Your task to perform on an android device: turn off translation in the chrome app Image 0: 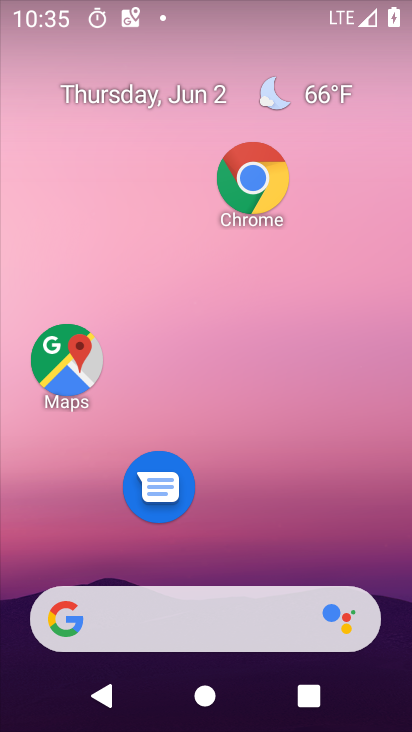
Step 0: drag from (239, 720) to (239, 90)
Your task to perform on an android device: turn off translation in the chrome app Image 1: 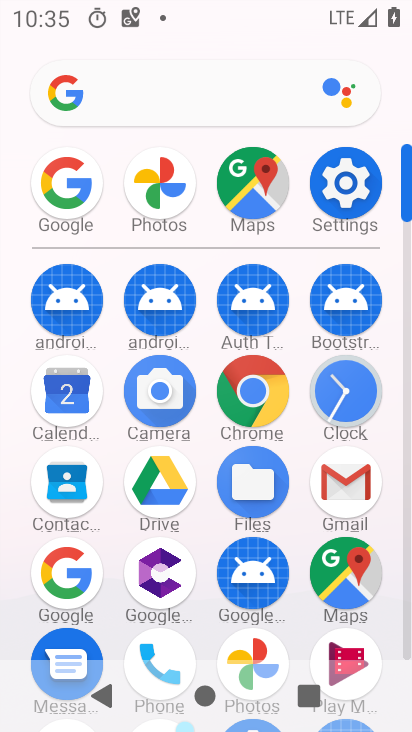
Step 1: click (261, 402)
Your task to perform on an android device: turn off translation in the chrome app Image 2: 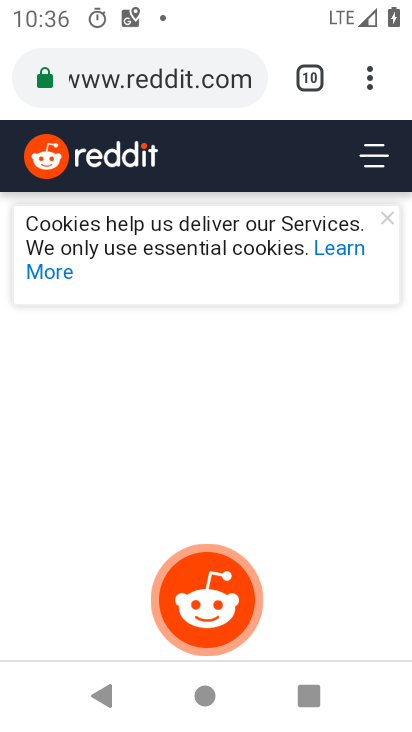
Step 2: click (369, 85)
Your task to perform on an android device: turn off translation in the chrome app Image 3: 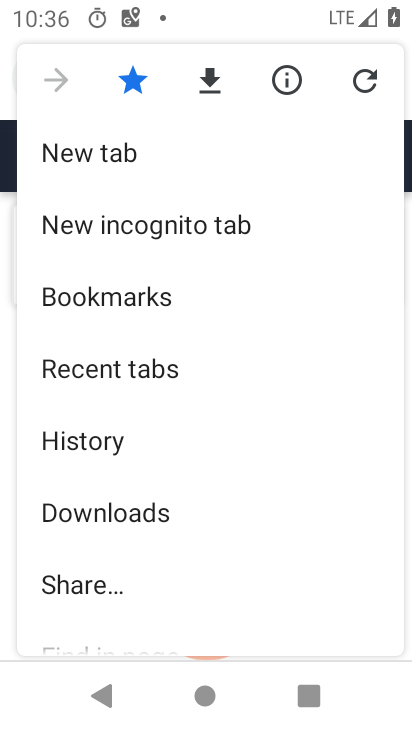
Step 3: drag from (159, 621) to (174, 248)
Your task to perform on an android device: turn off translation in the chrome app Image 4: 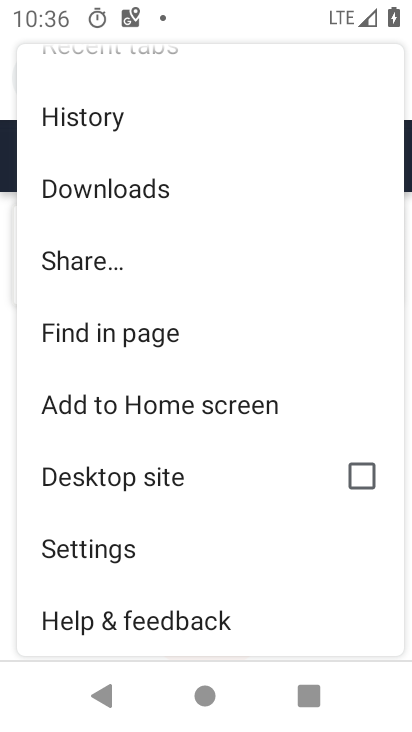
Step 4: click (91, 549)
Your task to perform on an android device: turn off translation in the chrome app Image 5: 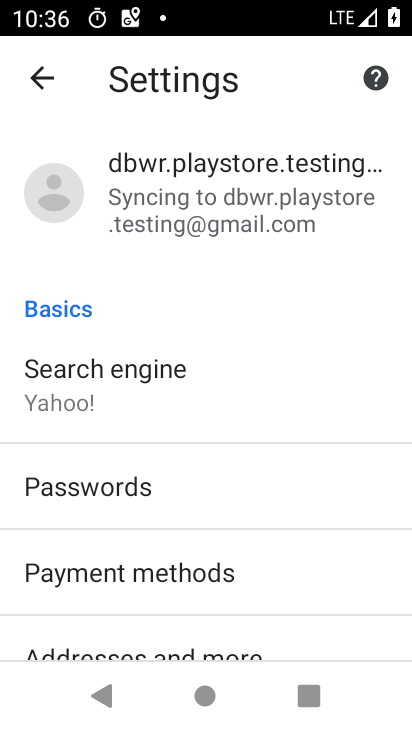
Step 5: drag from (197, 626) to (198, 261)
Your task to perform on an android device: turn off translation in the chrome app Image 6: 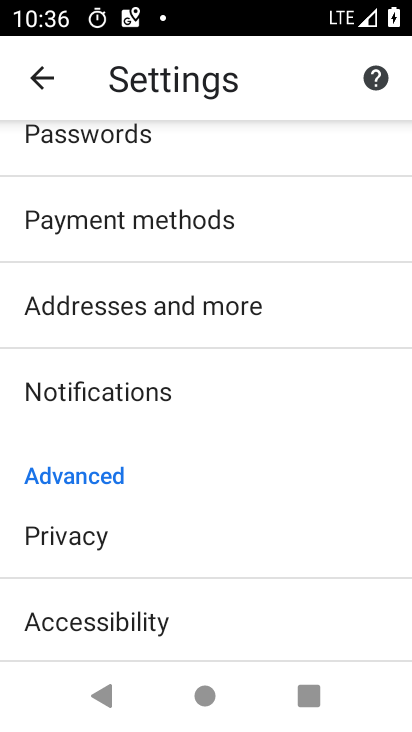
Step 6: drag from (136, 624) to (134, 289)
Your task to perform on an android device: turn off translation in the chrome app Image 7: 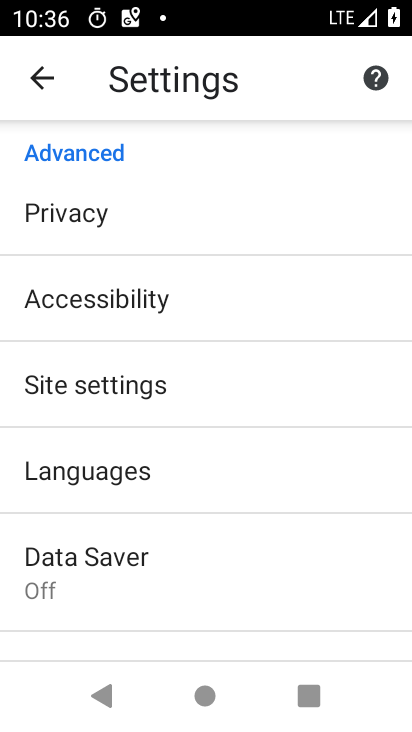
Step 7: click (113, 470)
Your task to perform on an android device: turn off translation in the chrome app Image 8: 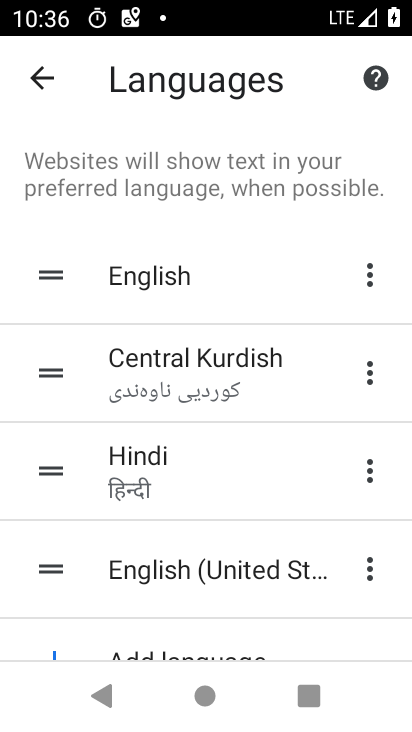
Step 8: task complete